Your task to perform on an android device: clear history in the chrome app Image 0: 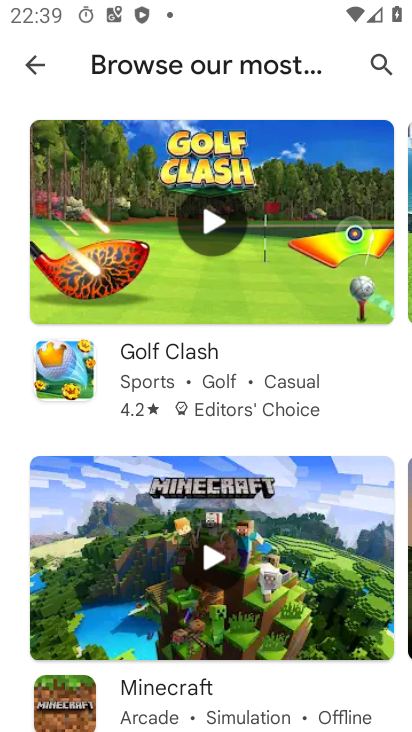
Step 0: press home button
Your task to perform on an android device: clear history in the chrome app Image 1: 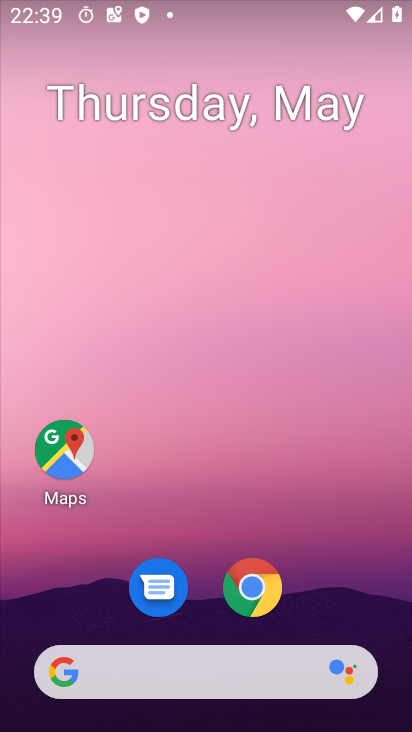
Step 1: click (261, 588)
Your task to perform on an android device: clear history in the chrome app Image 2: 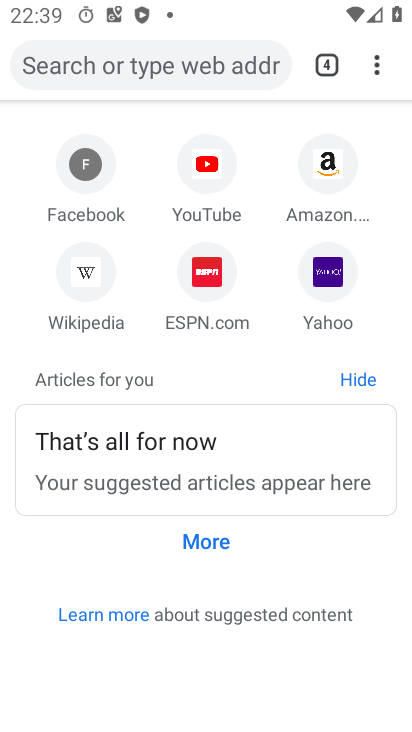
Step 2: click (378, 67)
Your task to perform on an android device: clear history in the chrome app Image 3: 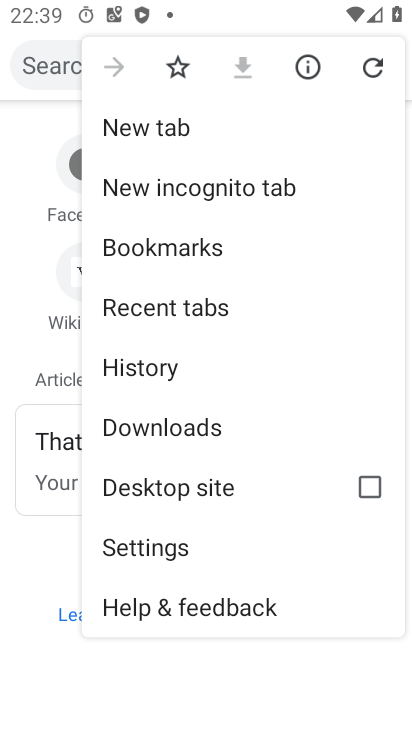
Step 3: click (144, 545)
Your task to perform on an android device: clear history in the chrome app Image 4: 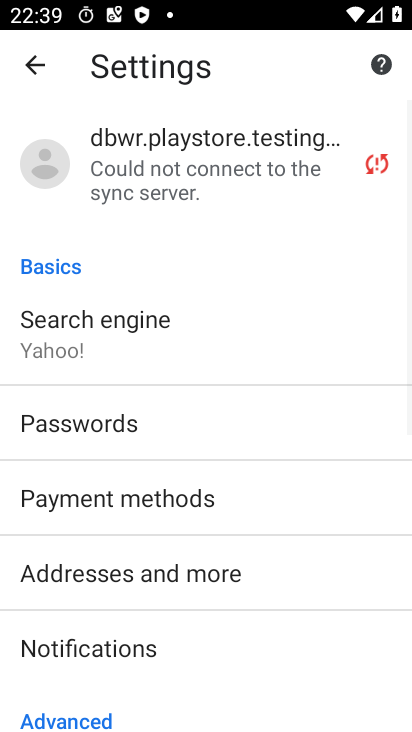
Step 4: drag from (244, 599) to (240, 233)
Your task to perform on an android device: clear history in the chrome app Image 5: 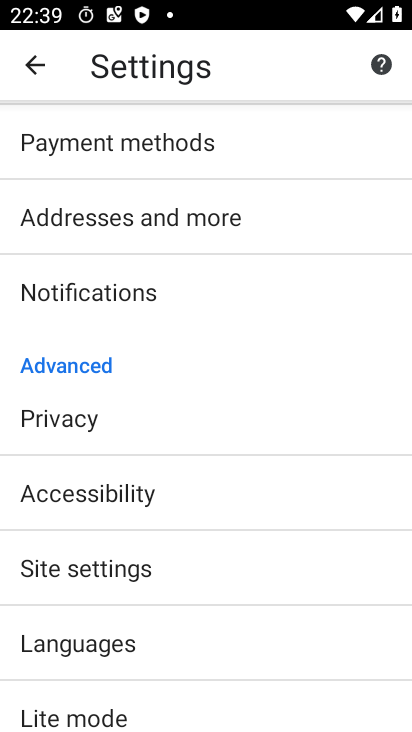
Step 5: click (59, 422)
Your task to perform on an android device: clear history in the chrome app Image 6: 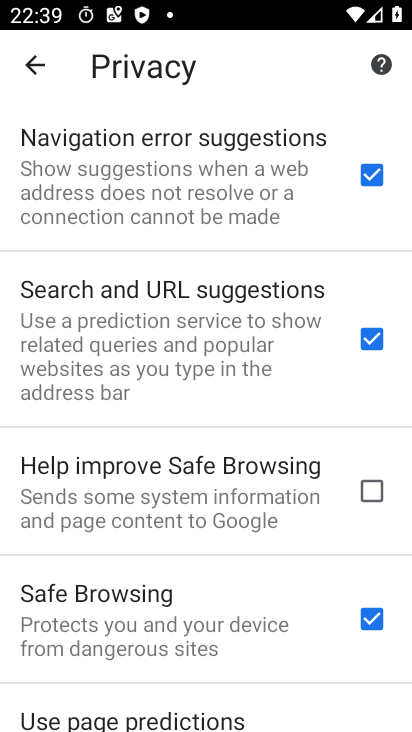
Step 6: drag from (199, 562) to (203, 57)
Your task to perform on an android device: clear history in the chrome app Image 7: 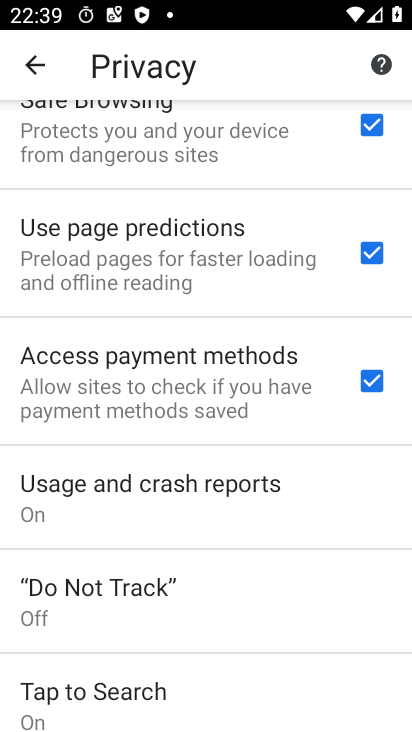
Step 7: drag from (126, 678) to (155, 42)
Your task to perform on an android device: clear history in the chrome app Image 8: 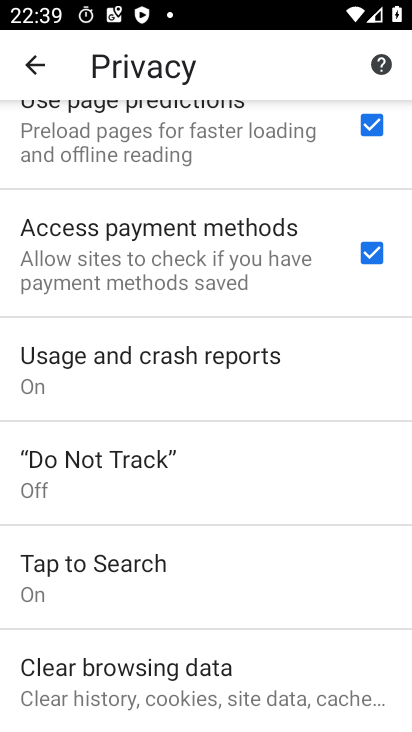
Step 8: click (109, 677)
Your task to perform on an android device: clear history in the chrome app Image 9: 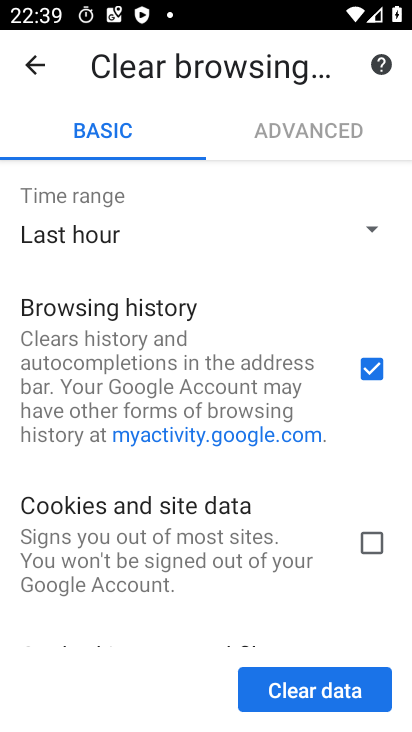
Step 9: drag from (171, 509) to (168, 288)
Your task to perform on an android device: clear history in the chrome app Image 10: 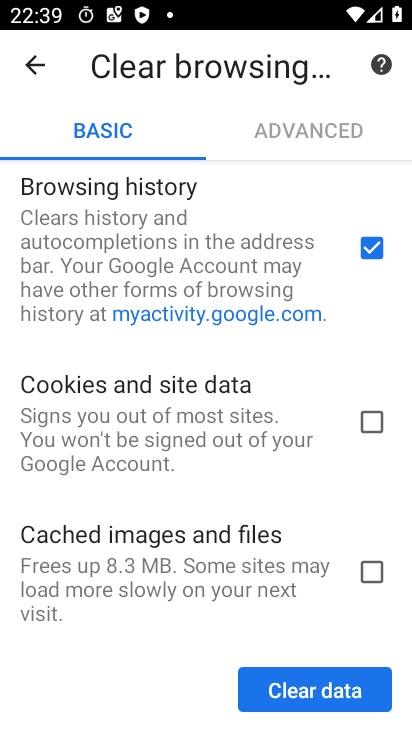
Step 10: click (318, 684)
Your task to perform on an android device: clear history in the chrome app Image 11: 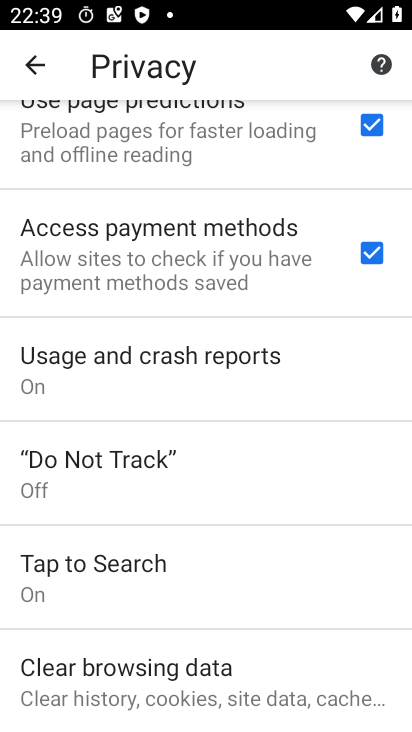
Step 11: task complete